Your task to perform on an android device: open device folders in google photos Image 0: 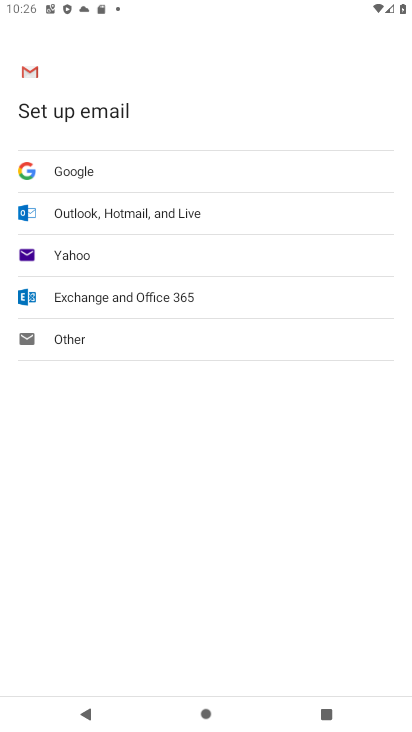
Step 0: press home button
Your task to perform on an android device: open device folders in google photos Image 1: 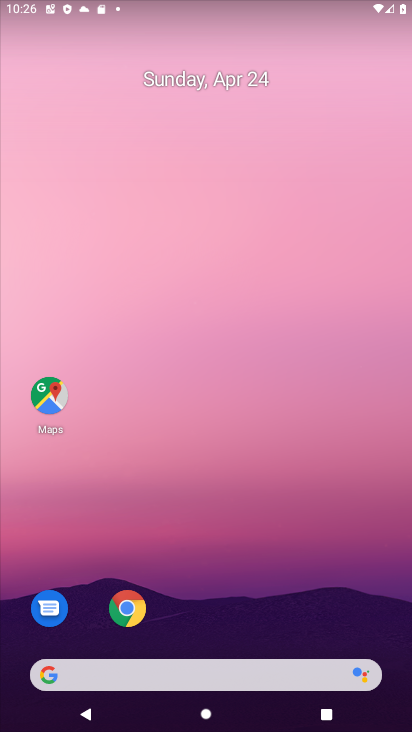
Step 1: drag from (286, 581) to (266, 58)
Your task to perform on an android device: open device folders in google photos Image 2: 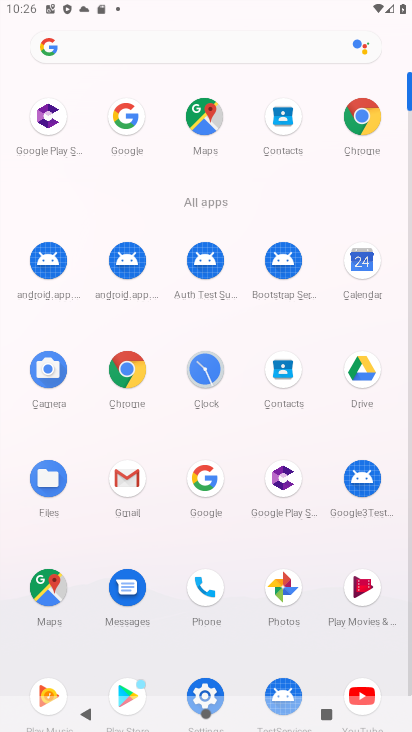
Step 2: click (288, 590)
Your task to perform on an android device: open device folders in google photos Image 3: 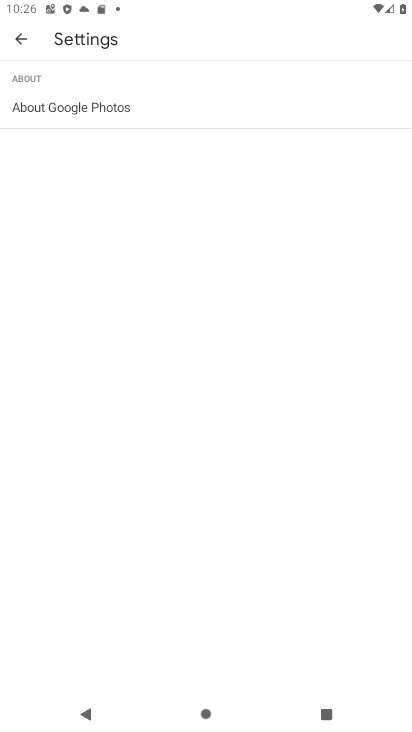
Step 3: click (21, 34)
Your task to perform on an android device: open device folders in google photos Image 4: 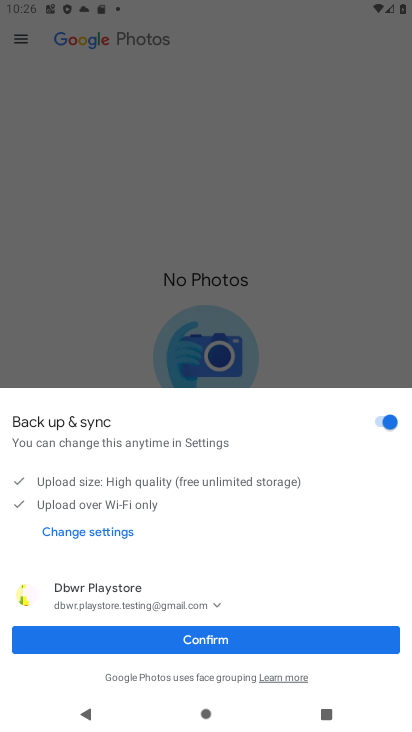
Step 4: click (23, 34)
Your task to perform on an android device: open device folders in google photos Image 5: 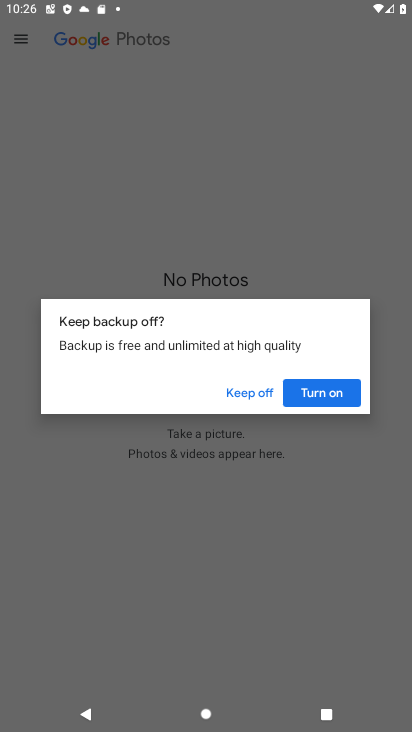
Step 5: click (240, 393)
Your task to perform on an android device: open device folders in google photos Image 6: 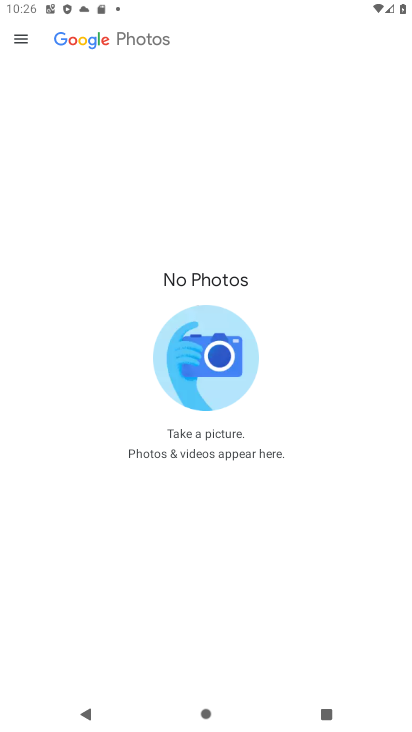
Step 6: click (14, 36)
Your task to perform on an android device: open device folders in google photos Image 7: 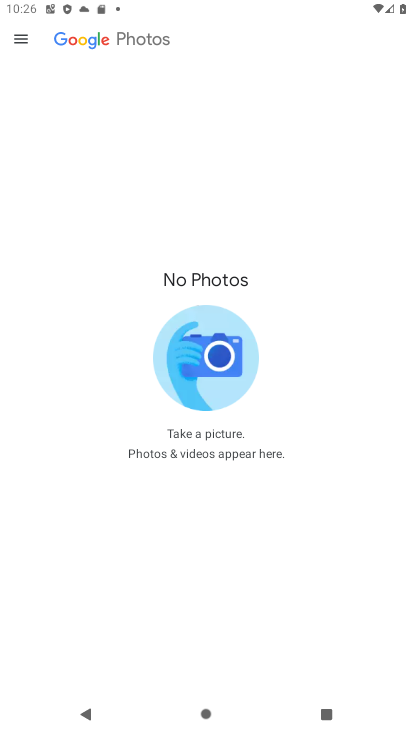
Step 7: click (10, 39)
Your task to perform on an android device: open device folders in google photos Image 8: 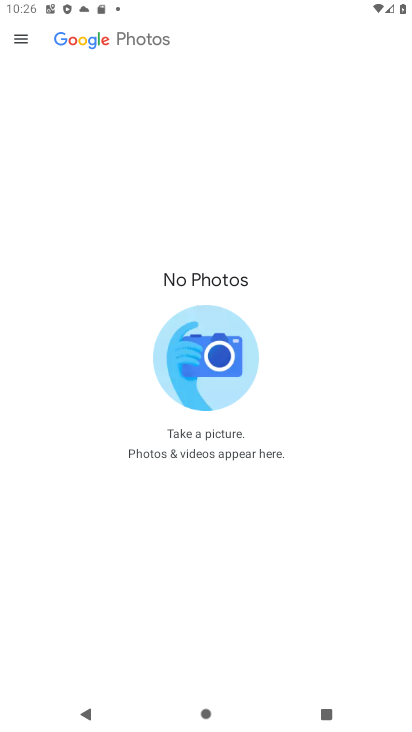
Step 8: click (18, 35)
Your task to perform on an android device: open device folders in google photos Image 9: 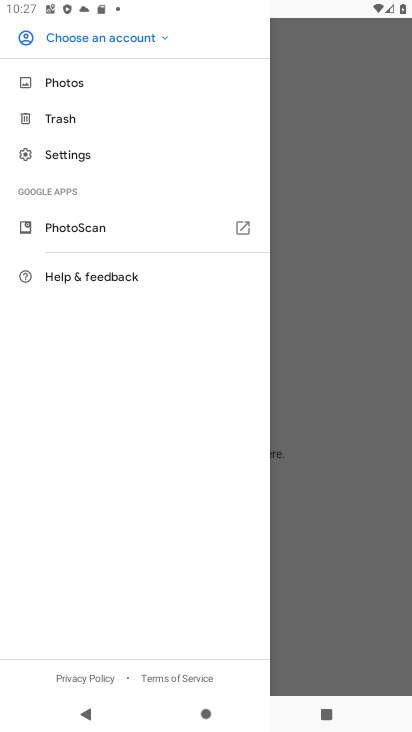
Step 9: click (67, 83)
Your task to perform on an android device: open device folders in google photos Image 10: 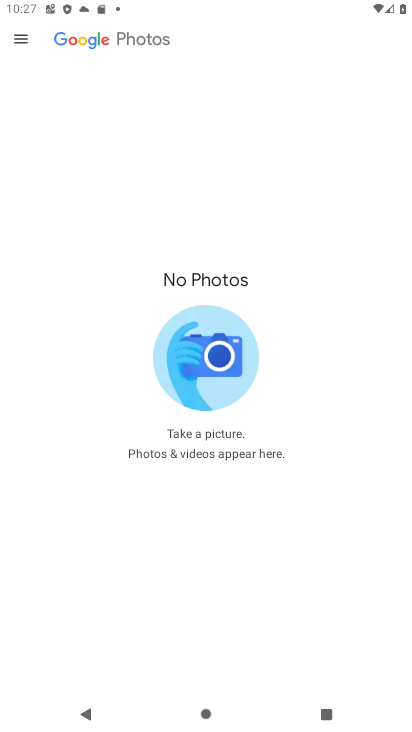
Step 10: task complete